Your task to perform on an android device: Open Google Chrome and click the shortcut for Amazon.com Image 0: 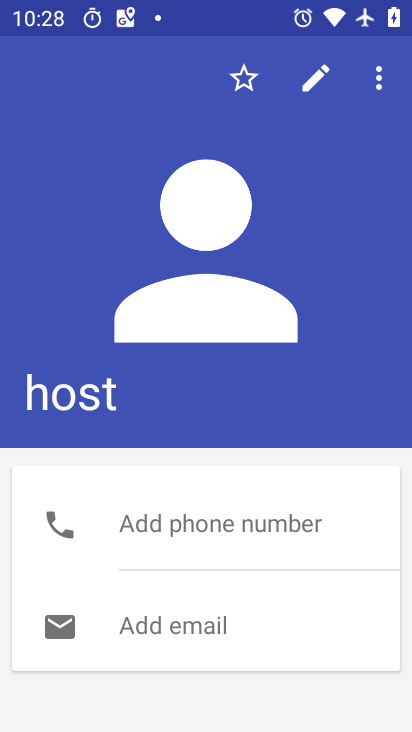
Step 0: press home button
Your task to perform on an android device: Open Google Chrome and click the shortcut for Amazon.com Image 1: 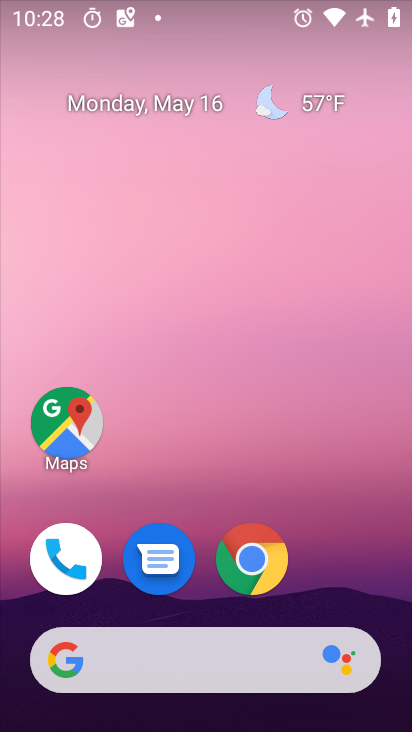
Step 1: click (256, 552)
Your task to perform on an android device: Open Google Chrome and click the shortcut for Amazon.com Image 2: 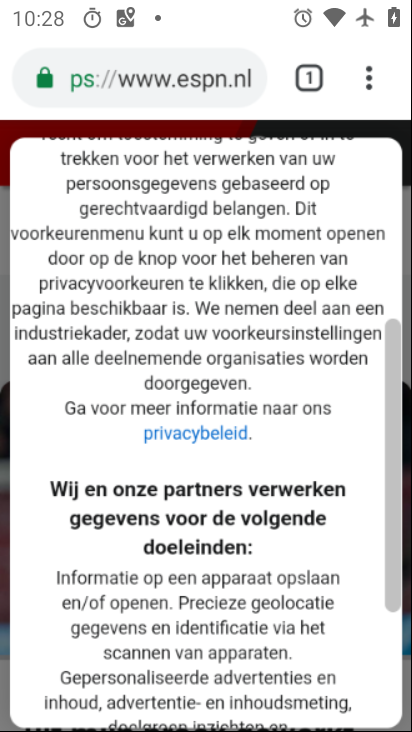
Step 2: click (208, 76)
Your task to perform on an android device: Open Google Chrome and click the shortcut for Amazon.com Image 3: 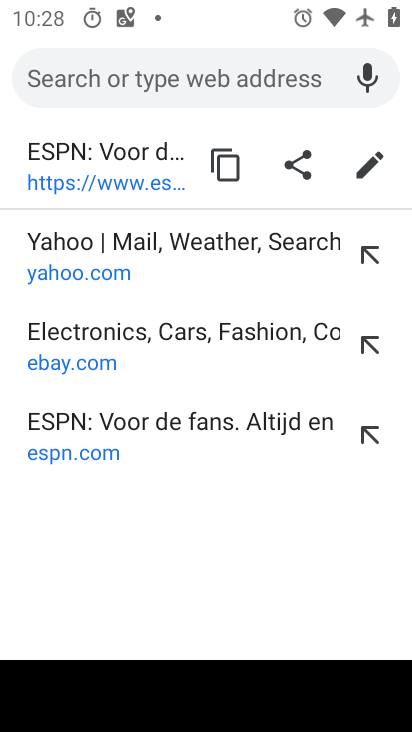
Step 3: type "amazon"
Your task to perform on an android device: Open Google Chrome and click the shortcut for Amazon.com Image 4: 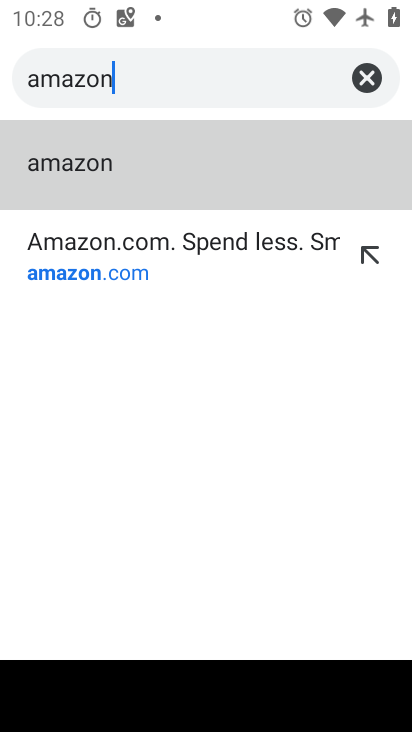
Step 4: click (70, 269)
Your task to perform on an android device: Open Google Chrome and click the shortcut for Amazon.com Image 5: 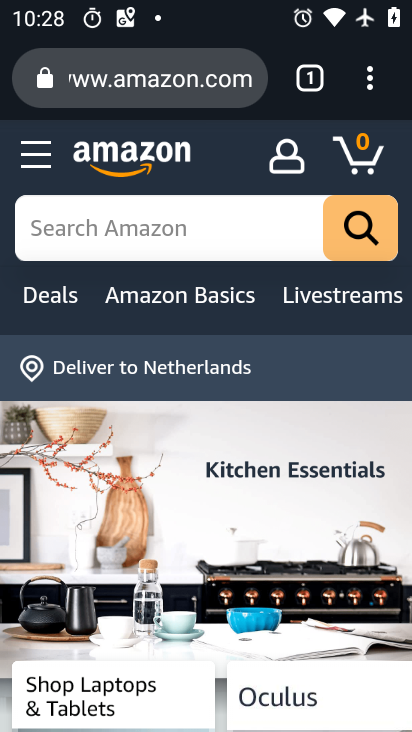
Step 5: task complete